Your task to perform on an android device: change timer sound Image 0: 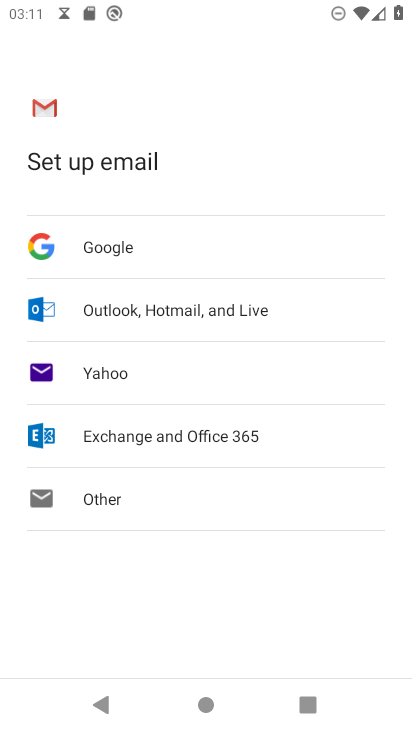
Step 0: press home button
Your task to perform on an android device: change timer sound Image 1: 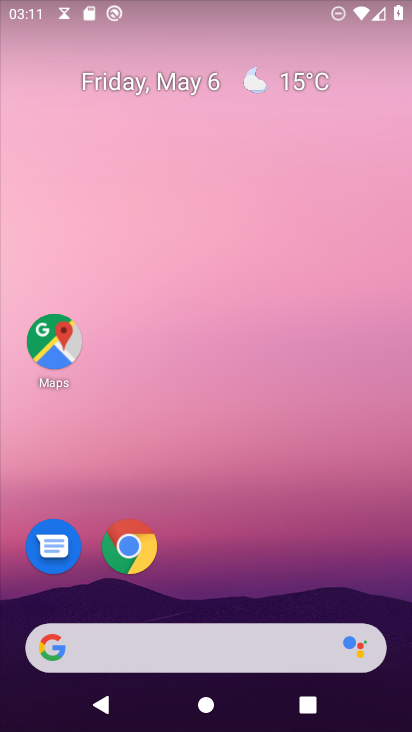
Step 1: drag from (228, 575) to (299, 175)
Your task to perform on an android device: change timer sound Image 2: 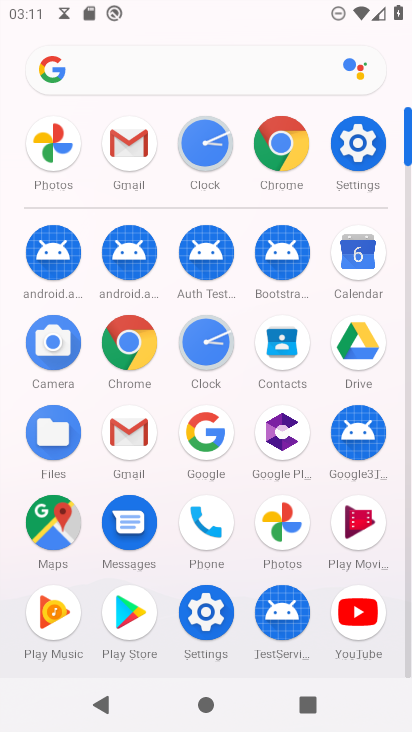
Step 2: click (218, 131)
Your task to perform on an android device: change timer sound Image 3: 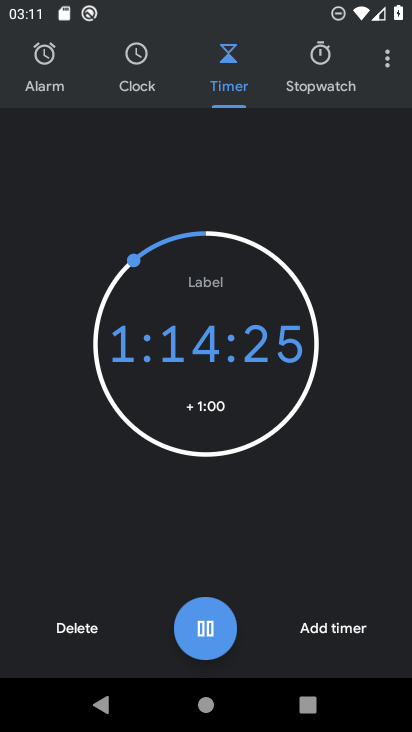
Step 3: click (394, 49)
Your task to perform on an android device: change timer sound Image 4: 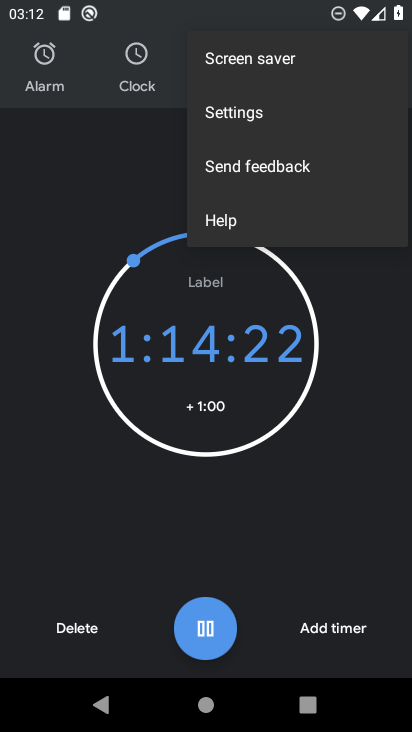
Step 4: click (246, 102)
Your task to perform on an android device: change timer sound Image 5: 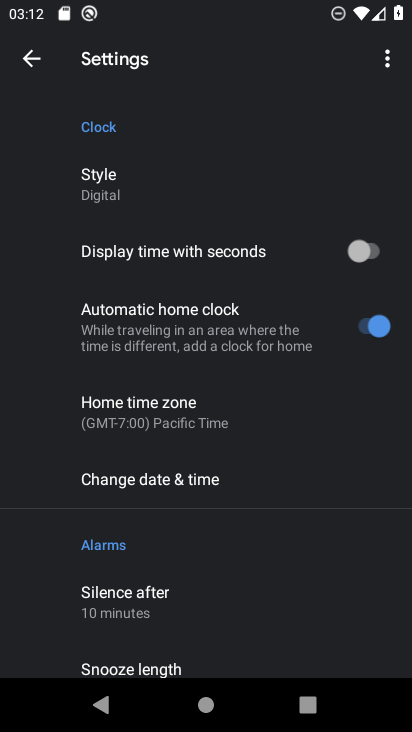
Step 5: drag from (119, 557) to (229, 235)
Your task to perform on an android device: change timer sound Image 6: 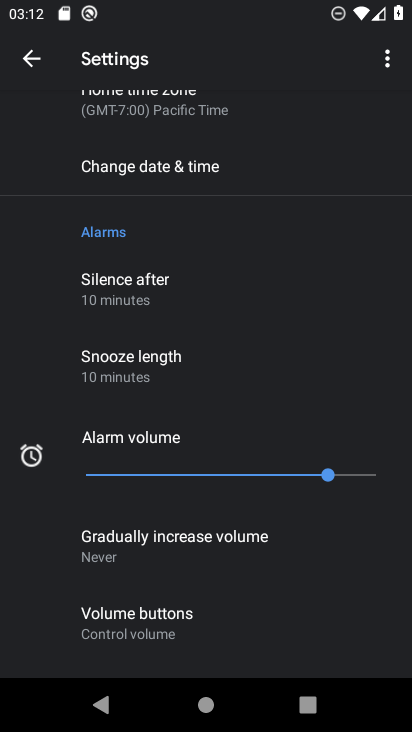
Step 6: drag from (163, 526) to (198, 280)
Your task to perform on an android device: change timer sound Image 7: 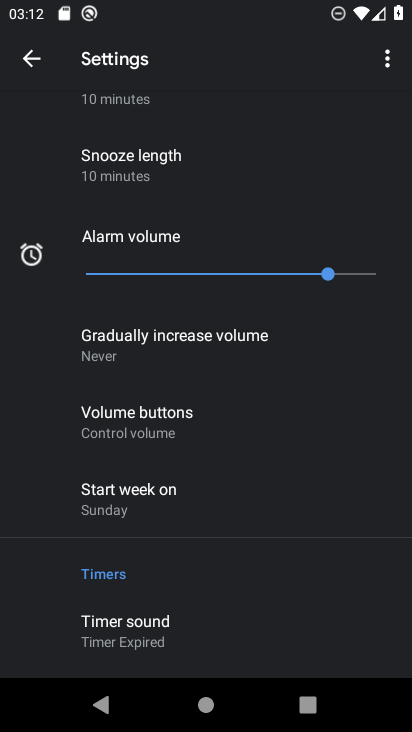
Step 7: drag from (208, 566) to (212, 407)
Your task to perform on an android device: change timer sound Image 8: 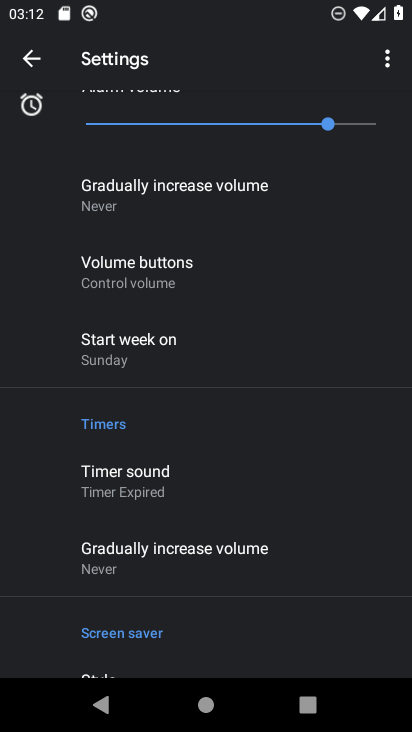
Step 8: click (180, 467)
Your task to perform on an android device: change timer sound Image 9: 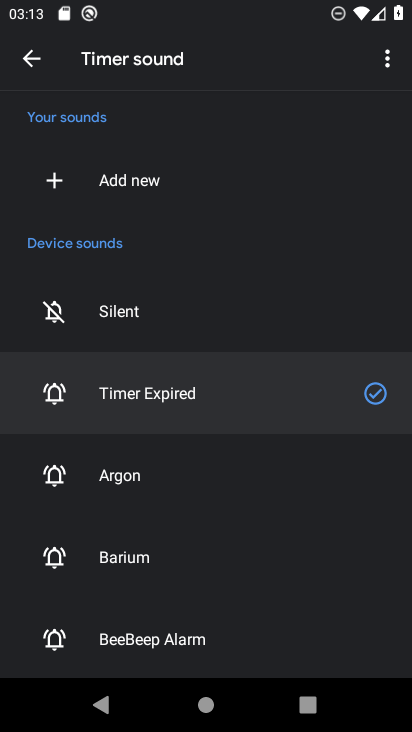
Step 9: click (159, 478)
Your task to perform on an android device: change timer sound Image 10: 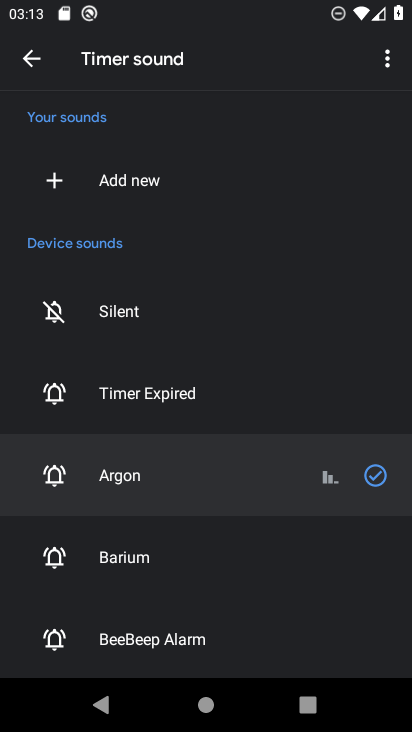
Step 10: task complete